Your task to perform on an android device: find photos in the google photos app Image 0: 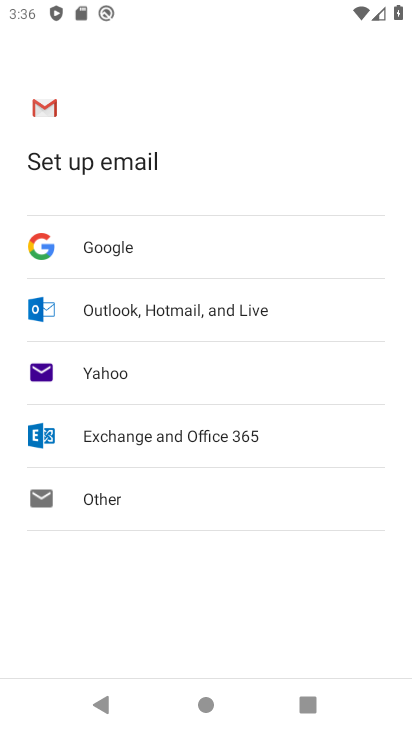
Step 0: press home button
Your task to perform on an android device: find photos in the google photos app Image 1: 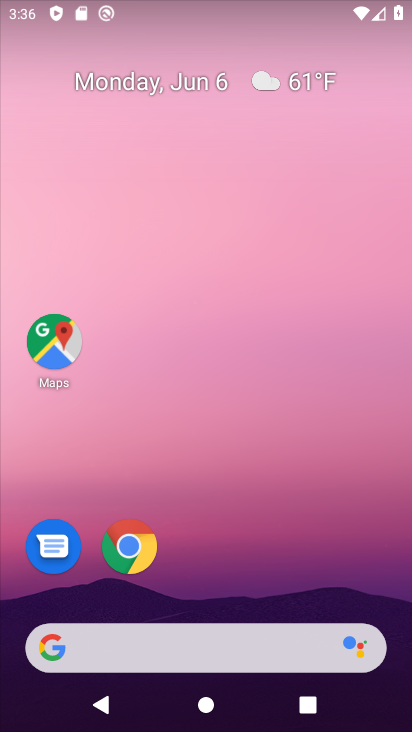
Step 1: drag from (229, 713) to (228, 73)
Your task to perform on an android device: find photos in the google photos app Image 2: 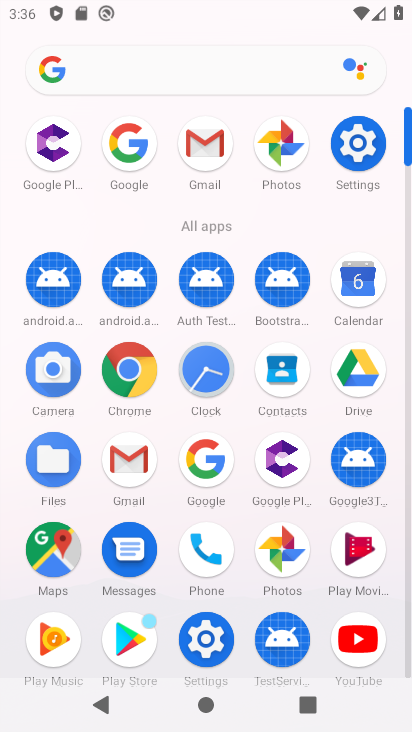
Step 2: click (267, 555)
Your task to perform on an android device: find photos in the google photos app Image 3: 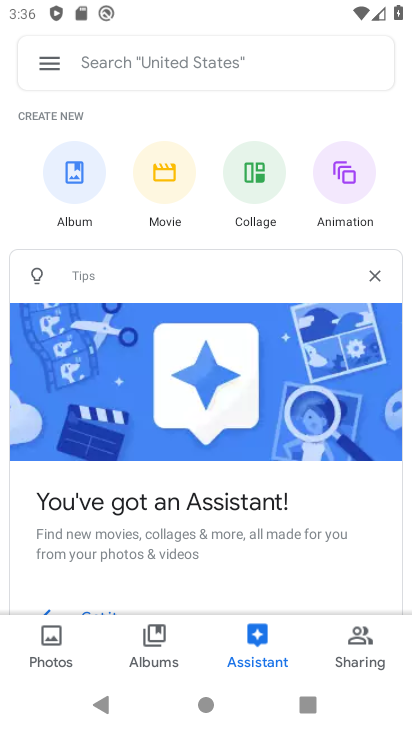
Step 3: click (49, 637)
Your task to perform on an android device: find photos in the google photos app Image 4: 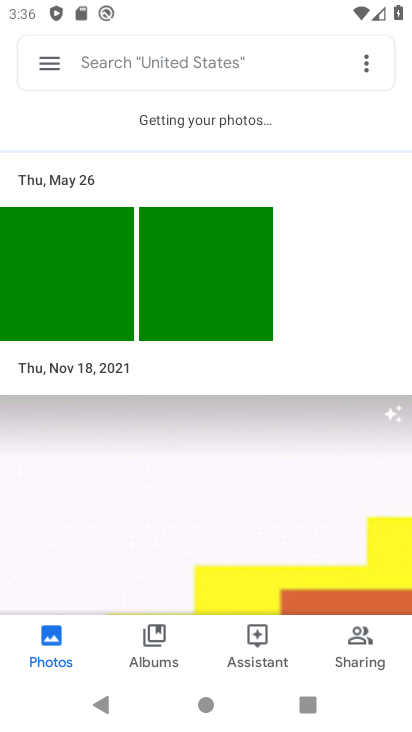
Step 4: click (73, 281)
Your task to perform on an android device: find photos in the google photos app Image 5: 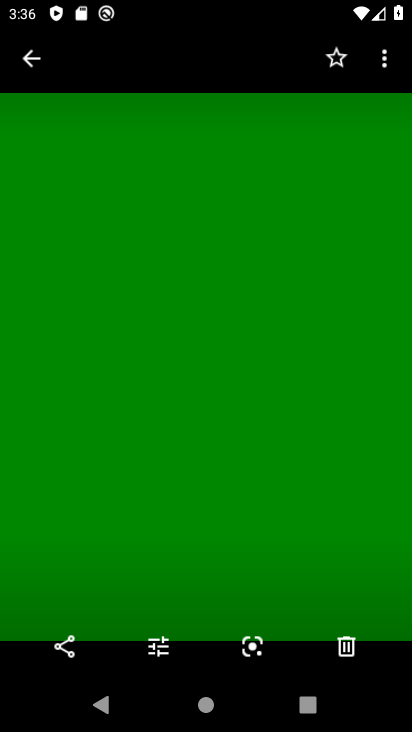
Step 5: task complete